Your task to perform on an android device: Go to accessibility settings Image 0: 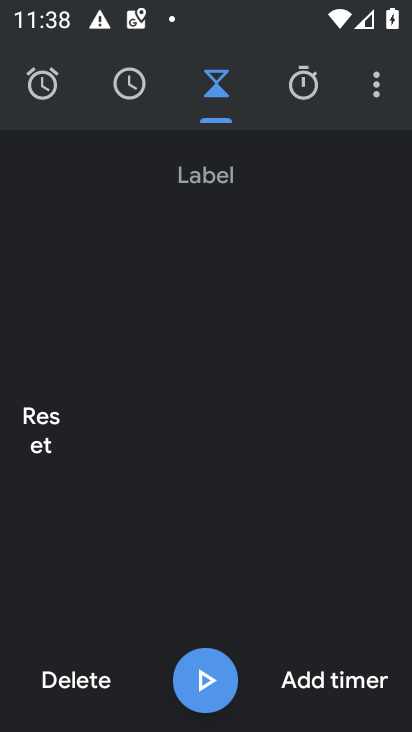
Step 0: press home button
Your task to perform on an android device: Go to accessibility settings Image 1: 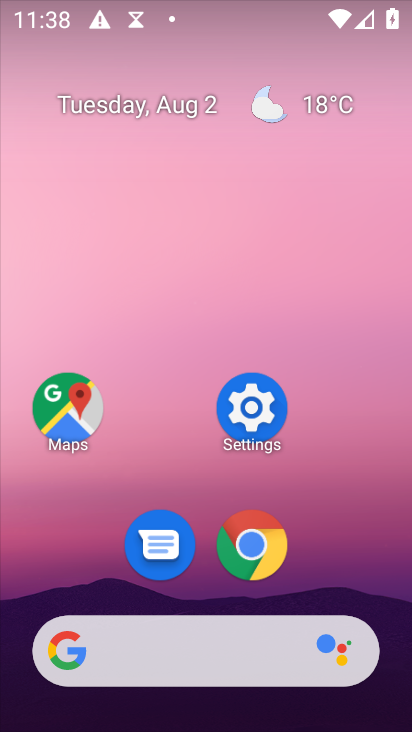
Step 1: click (257, 415)
Your task to perform on an android device: Go to accessibility settings Image 2: 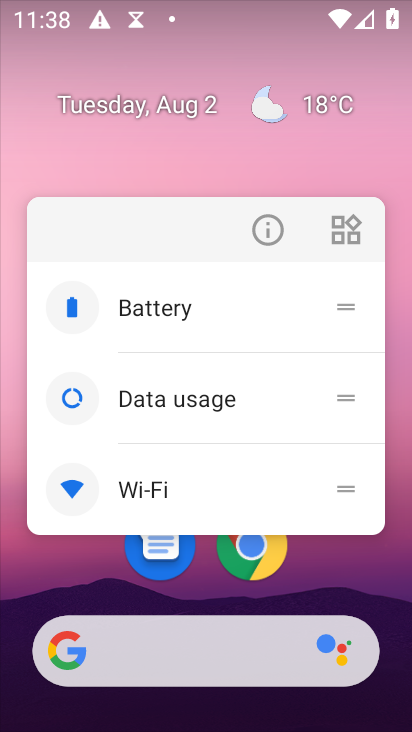
Step 2: click (359, 160)
Your task to perform on an android device: Go to accessibility settings Image 3: 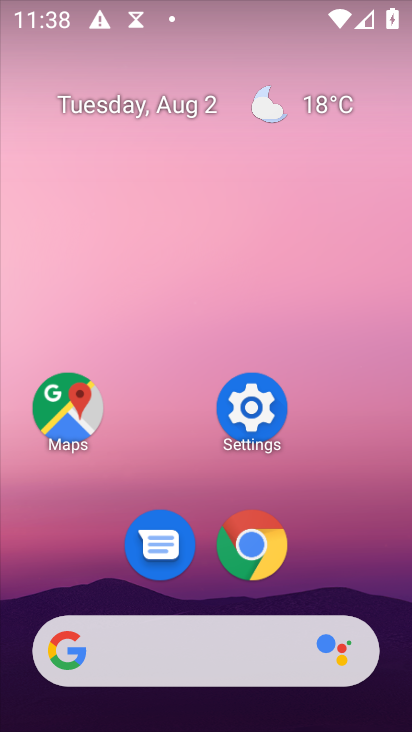
Step 3: click (250, 405)
Your task to perform on an android device: Go to accessibility settings Image 4: 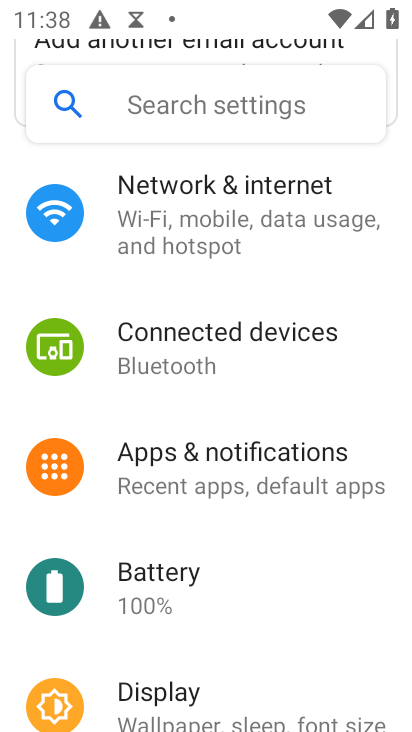
Step 4: drag from (247, 637) to (305, 38)
Your task to perform on an android device: Go to accessibility settings Image 5: 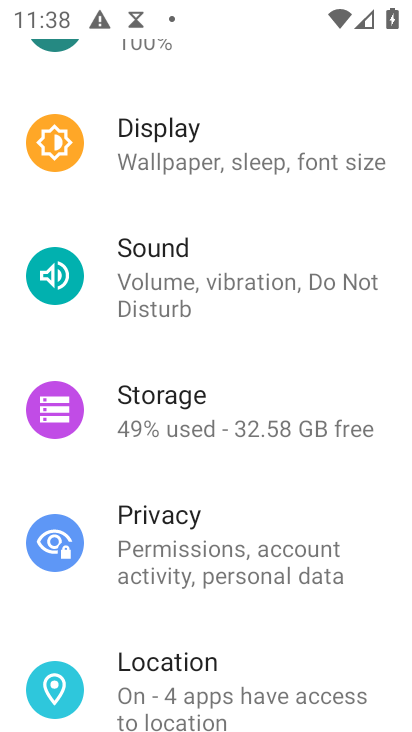
Step 5: drag from (260, 646) to (338, 143)
Your task to perform on an android device: Go to accessibility settings Image 6: 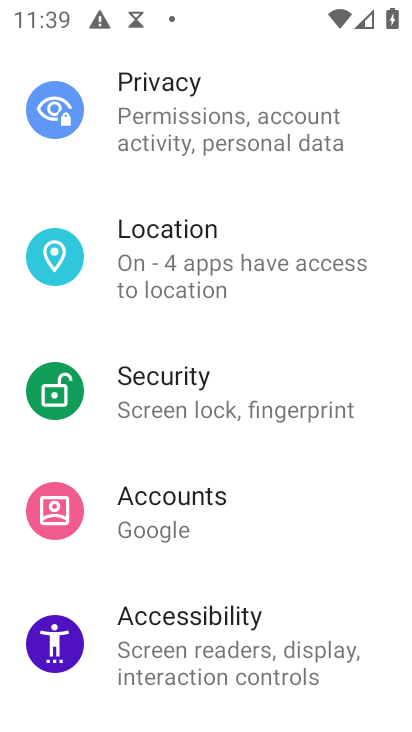
Step 6: click (199, 627)
Your task to perform on an android device: Go to accessibility settings Image 7: 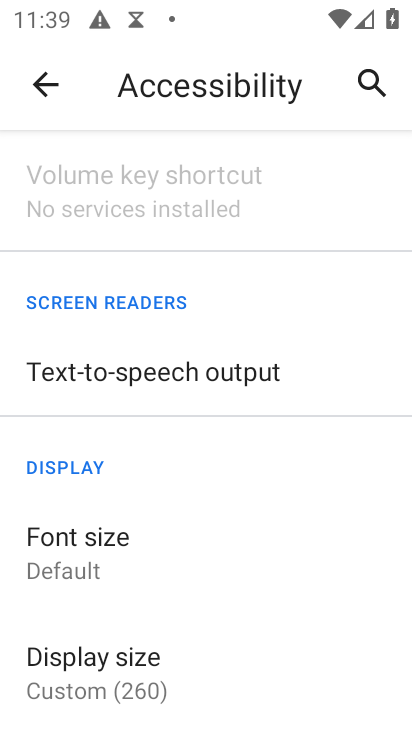
Step 7: task complete